Your task to perform on an android device: Go to eBay Image 0: 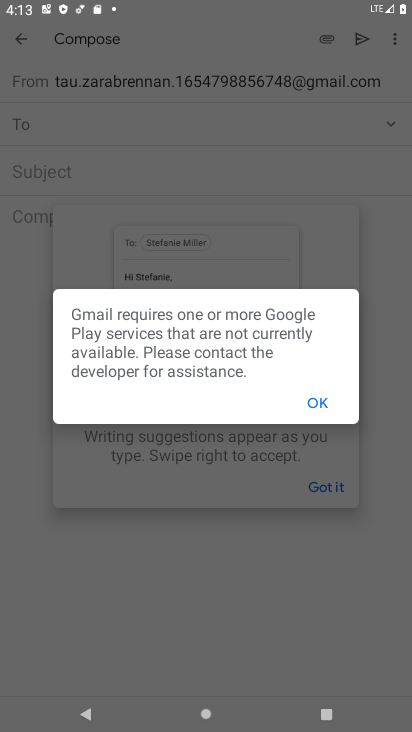
Step 0: press home button
Your task to perform on an android device: Go to eBay Image 1: 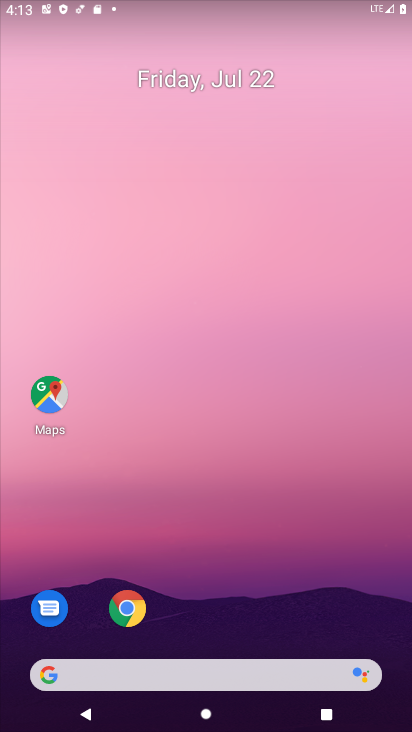
Step 1: drag from (225, 720) to (243, 202)
Your task to perform on an android device: Go to eBay Image 2: 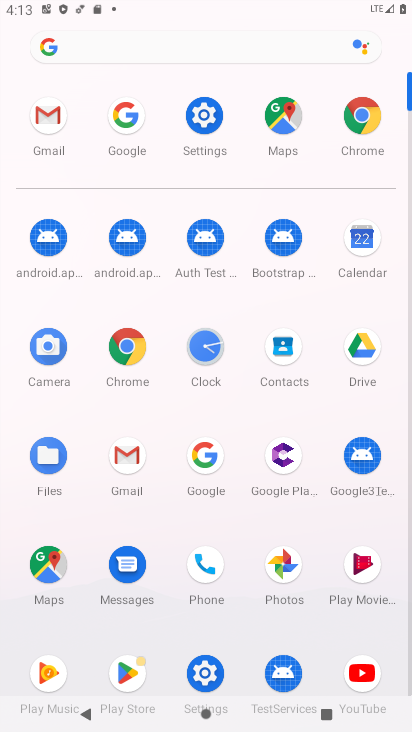
Step 2: click (361, 118)
Your task to perform on an android device: Go to eBay Image 3: 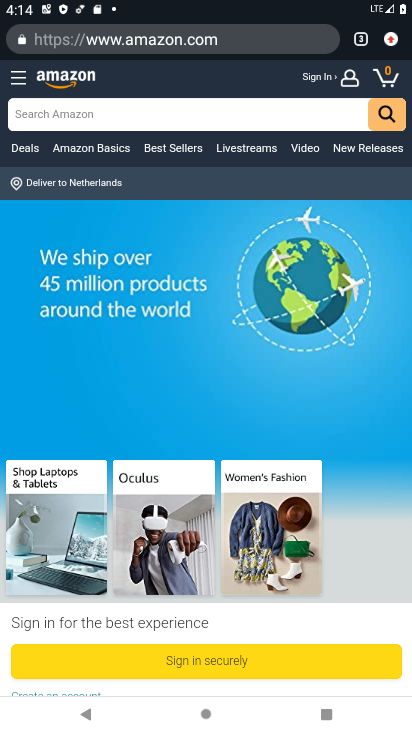
Step 3: click (390, 42)
Your task to perform on an android device: Go to eBay Image 4: 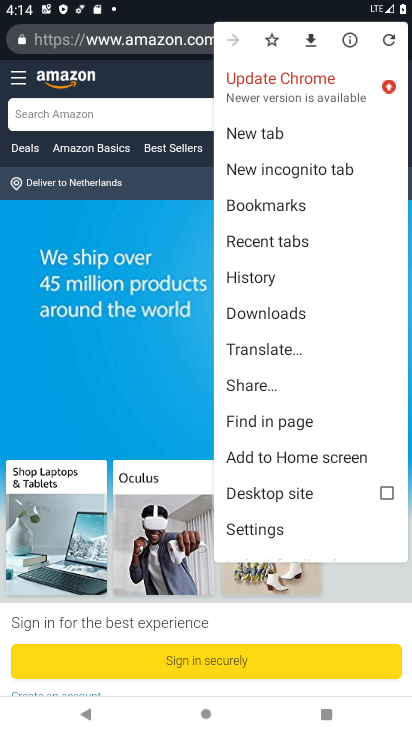
Step 4: click (249, 136)
Your task to perform on an android device: Go to eBay Image 5: 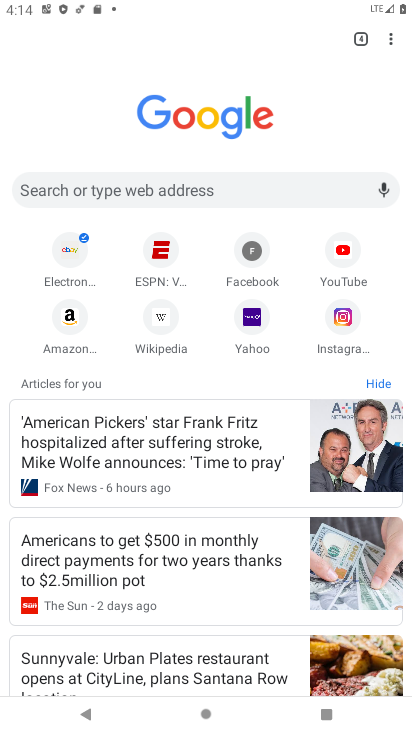
Step 5: click (235, 194)
Your task to perform on an android device: Go to eBay Image 6: 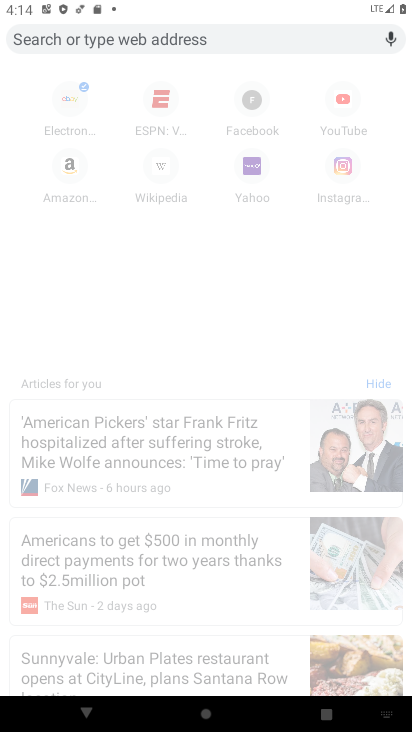
Step 6: type "eBAY"
Your task to perform on an android device: Go to eBay Image 7: 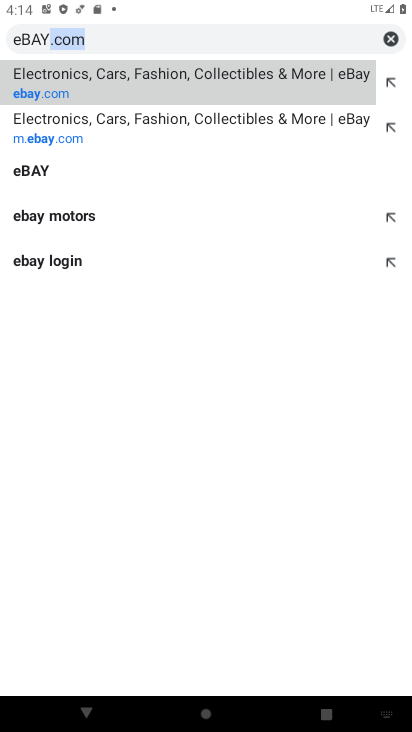
Step 7: type ""
Your task to perform on an android device: Go to eBay Image 8: 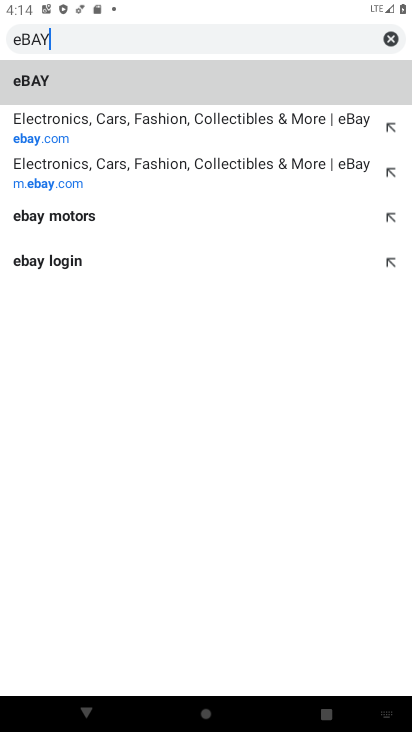
Step 8: click (43, 72)
Your task to perform on an android device: Go to eBay Image 9: 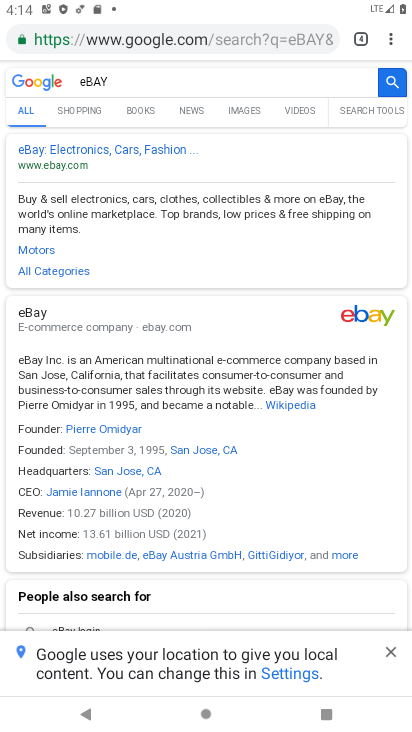
Step 9: click (77, 149)
Your task to perform on an android device: Go to eBay Image 10: 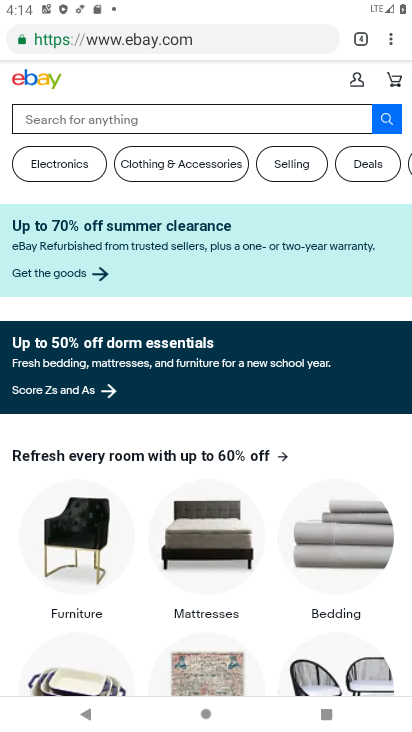
Step 10: task complete